Your task to perform on an android device: turn on sleep mode Image 0: 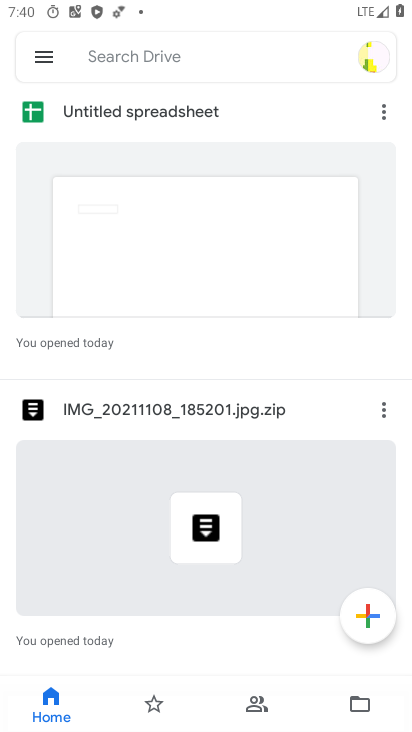
Step 0: drag from (213, 578) to (330, 83)
Your task to perform on an android device: turn on sleep mode Image 1: 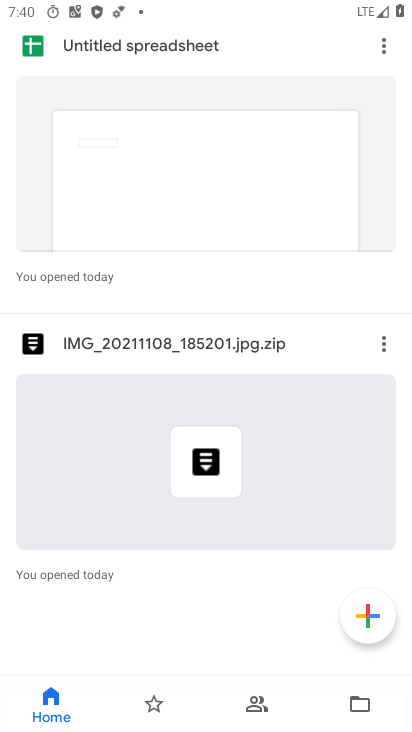
Step 1: drag from (248, 522) to (295, 178)
Your task to perform on an android device: turn on sleep mode Image 2: 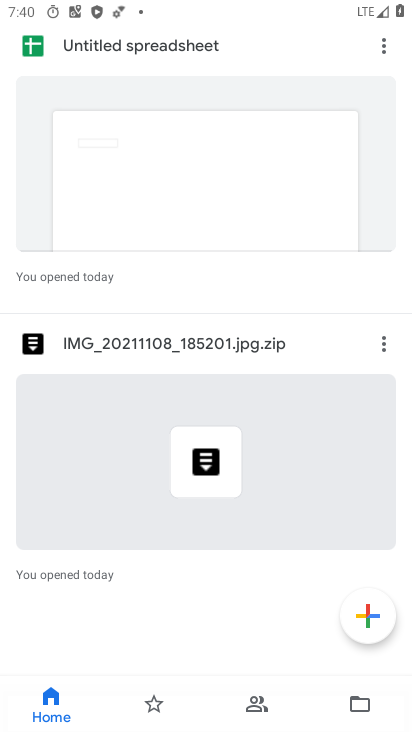
Step 2: drag from (194, 590) to (266, 245)
Your task to perform on an android device: turn on sleep mode Image 3: 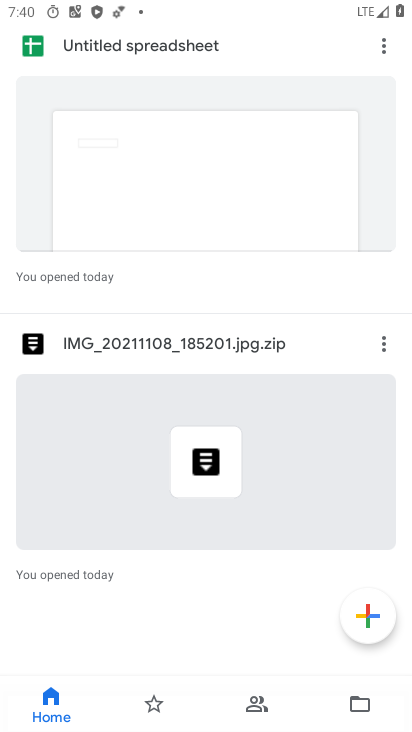
Step 3: drag from (170, 604) to (221, 357)
Your task to perform on an android device: turn on sleep mode Image 4: 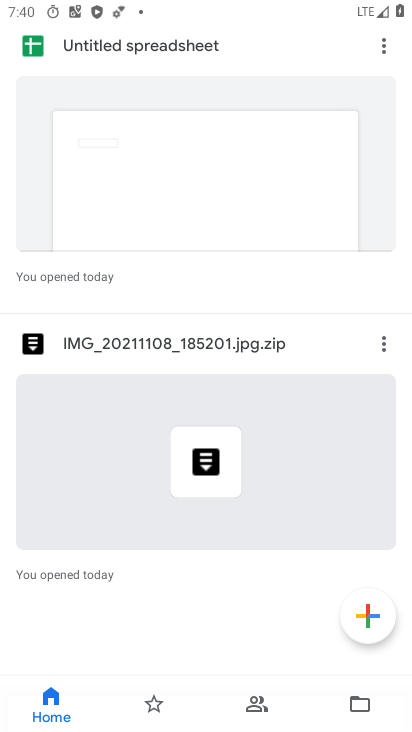
Step 4: drag from (208, 148) to (237, 705)
Your task to perform on an android device: turn on sleep mode Image 5: 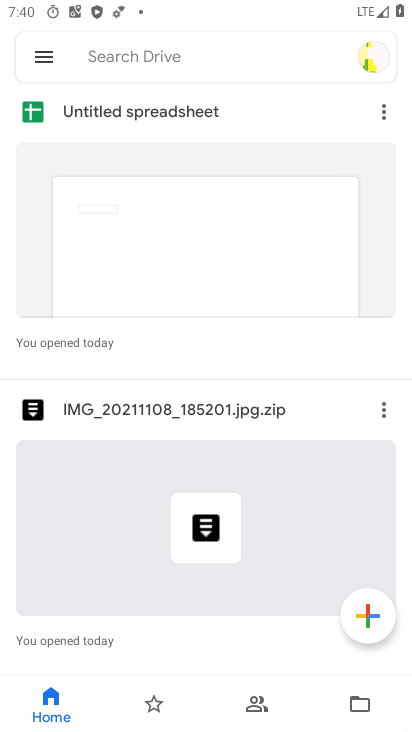
Step 5: drag from (179, 640) to (197, 249)
Your task to perform on an android device: turn on sleep mode Image 6: 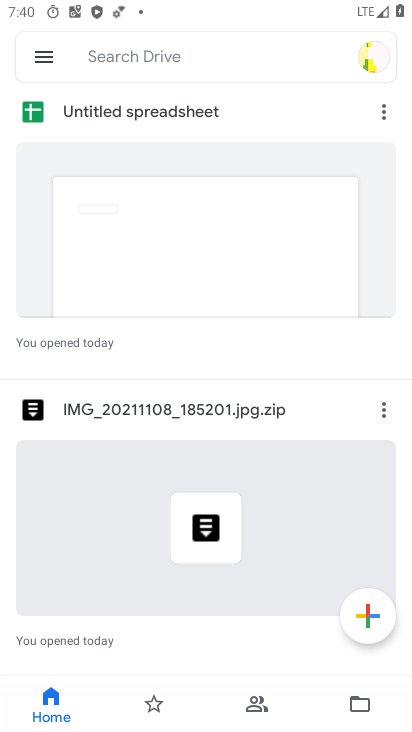
Step 6: drag from (226, 118) to (253, 674)
Your task to perform on an android device: turn on sleep mode Image 7: 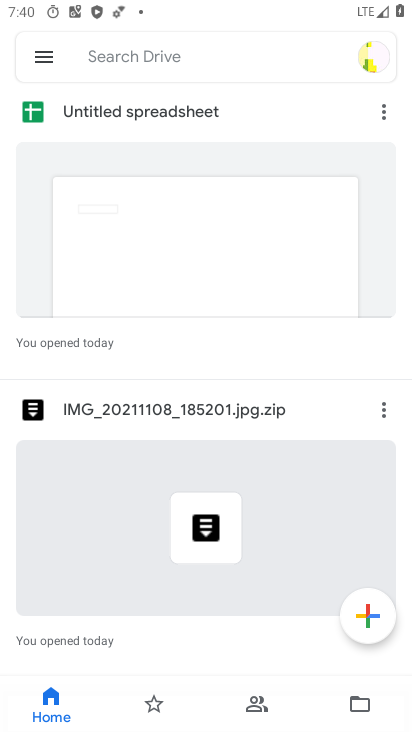
Step 7: drag from (223, 128) to (249, 468)
Your task to perform on an android device: turn on sleep mode Image 8: 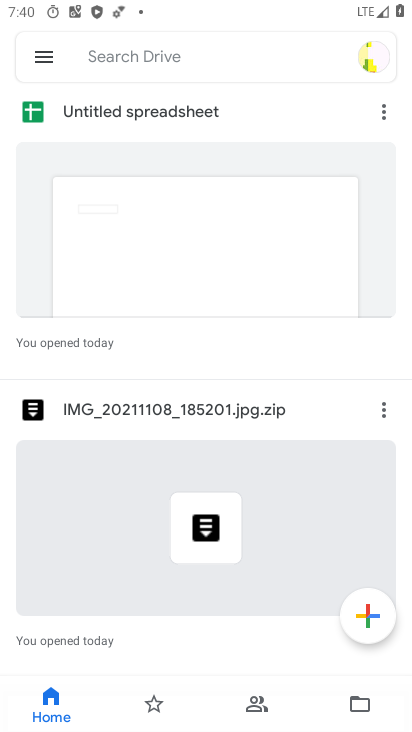
Step 8: press home button
Your task to perform on an android device: turn on sleep mode Image 9: 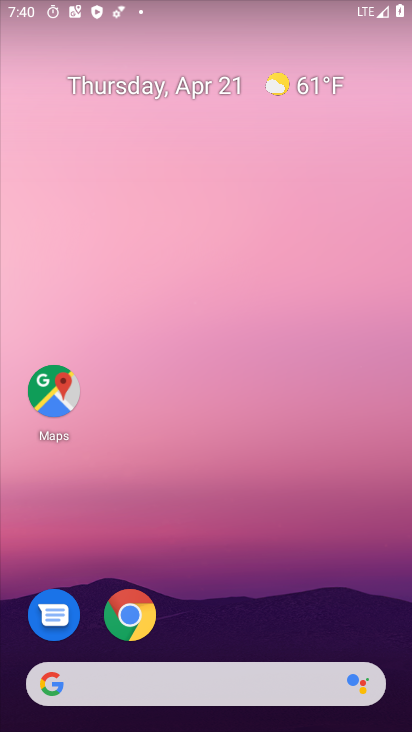
Step 9: drag from (188, 634) to (263, 207)
Your task to perform on an android device: turn on sleep mode Image 10: 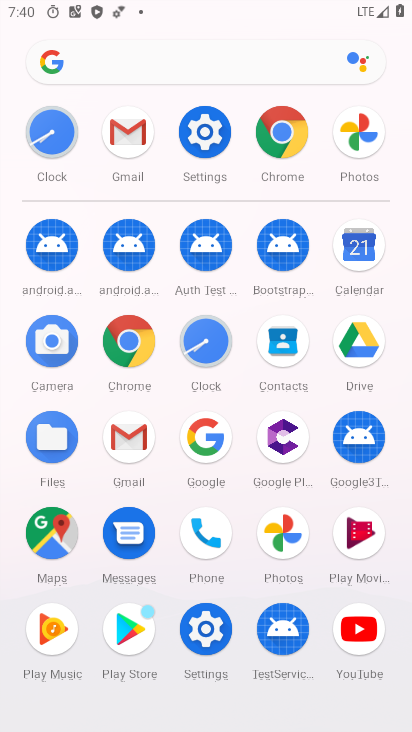
Step 10: click (195, 626)
Your task to perform on an android device: turn on sleep mode Image 11: 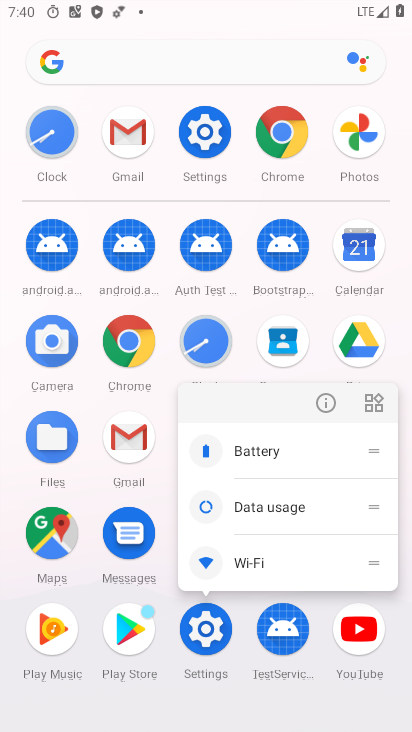
Step 11: click (332, 398)
Your task to perform on an android device: turn on sleep mode Image 12: 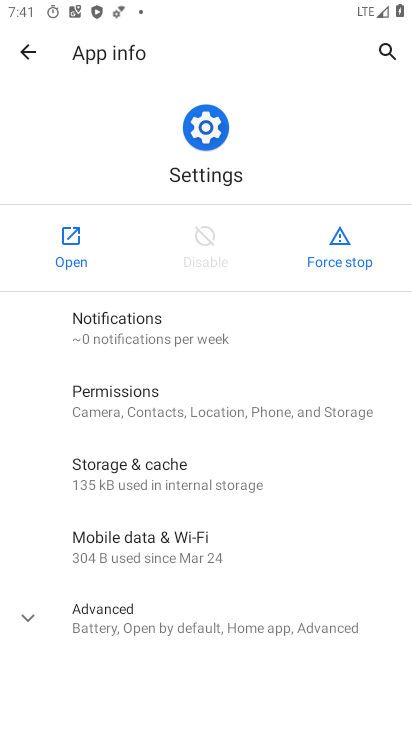
Step 12: click (57, 252)
Your task to perform on an android device: turn on sleep mode Image 13: 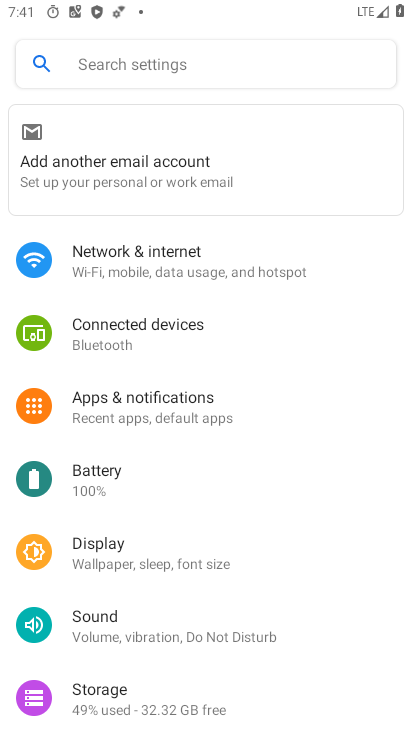
Step 13: drag from (200, 660) to (215, 513)
Your task to perform on an android device: turn on sleep mode Image 14: 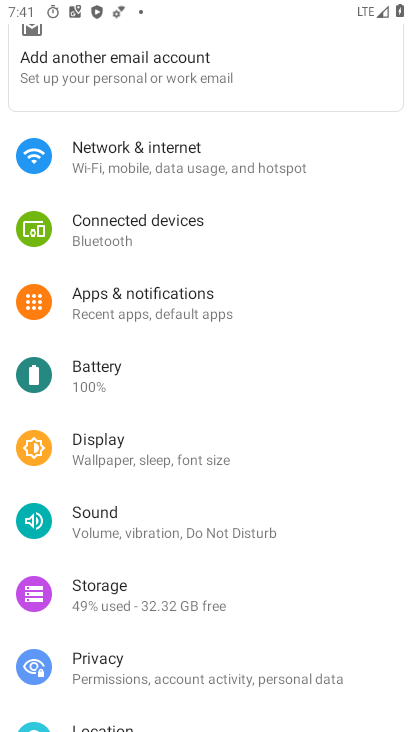
Step 14: click (159, 459)
Your task to perform on an android device: turn on sleep mode Image 15: 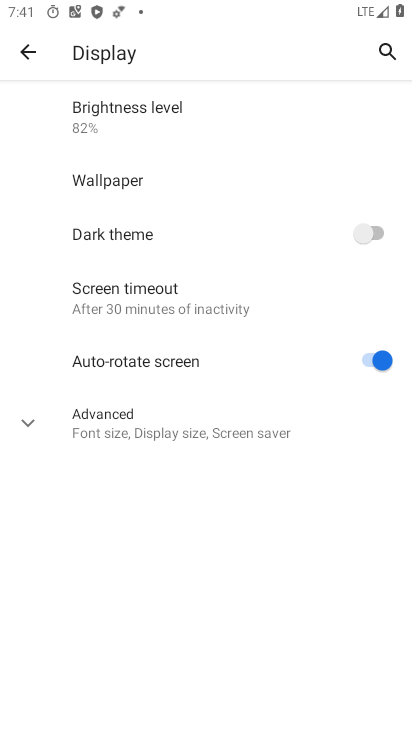
Step 15: click (195, 290)
Your task to perform on an android device: turn on sleep mode Image 16: 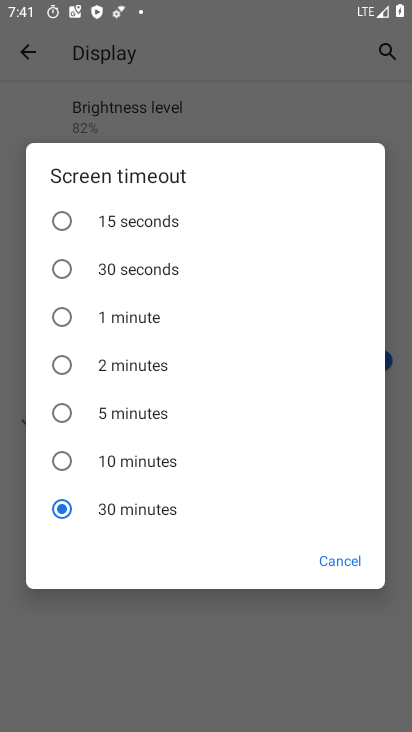
Step 16: click (107, 233)
Your task to perform on an android device: turn on sleep mode Image 17: 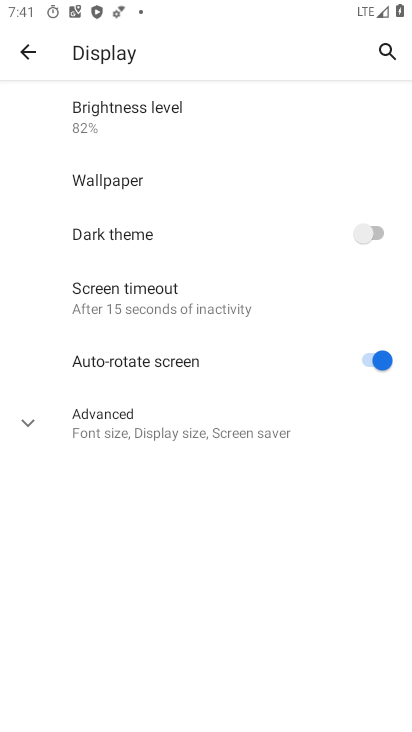
Step 17: task complete